Your task to perform on an android device: set an alarm Image 0: 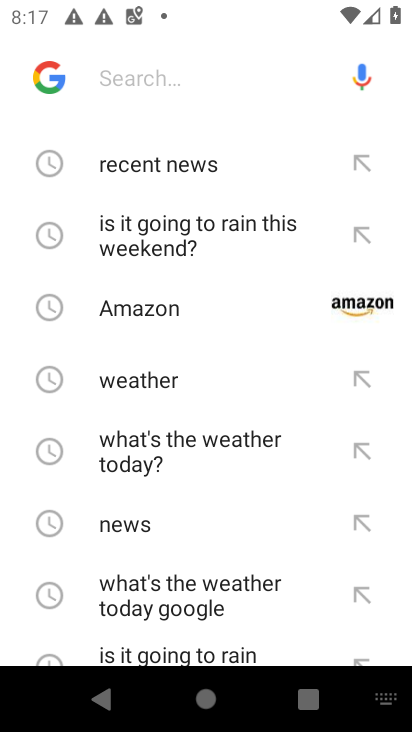
Step 0: press back button
Your task to perform on an android device: set an alarm Image 1: 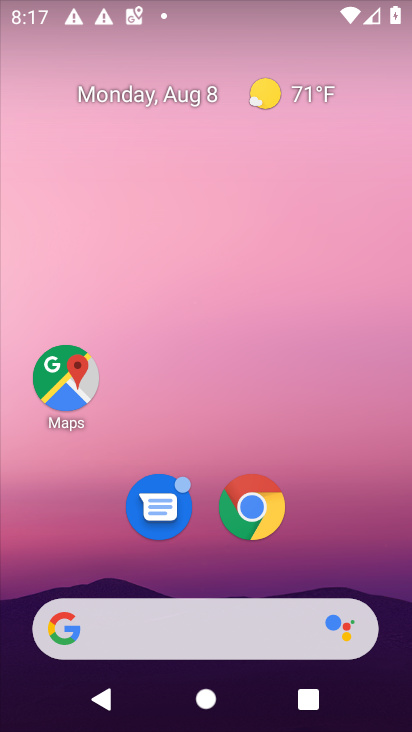
Step 1: drag from (223, 590) to (310, 37)
Your task to perform on an android device: set an alarm Image 2: 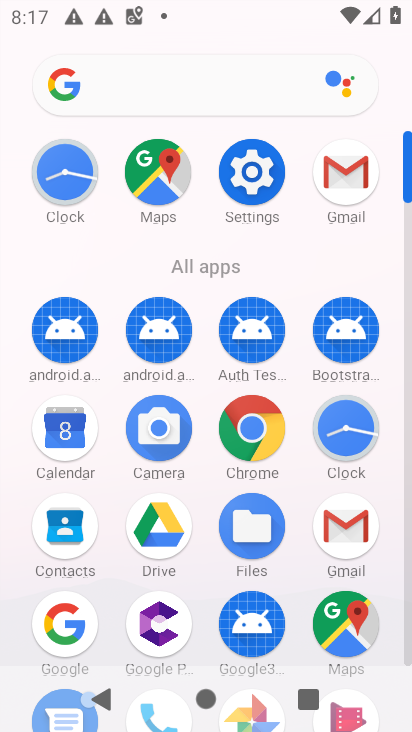
Step 2: click (338, 438)
Your task to perform on an android device: set an alarm Image 3: 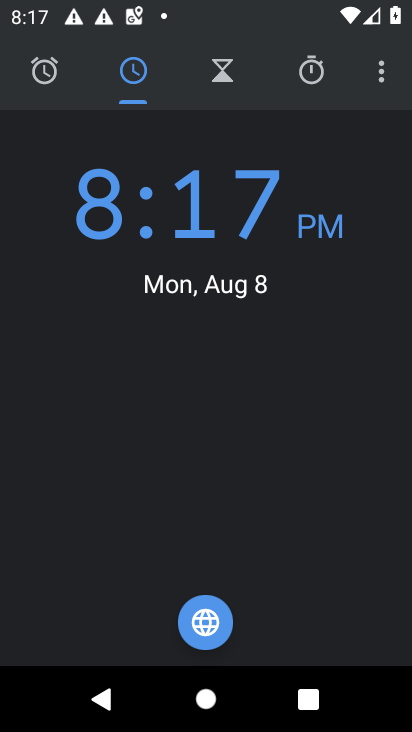
Step 3: click (50, 68)
Your task to perform on an android device: set an alarm Image 4: 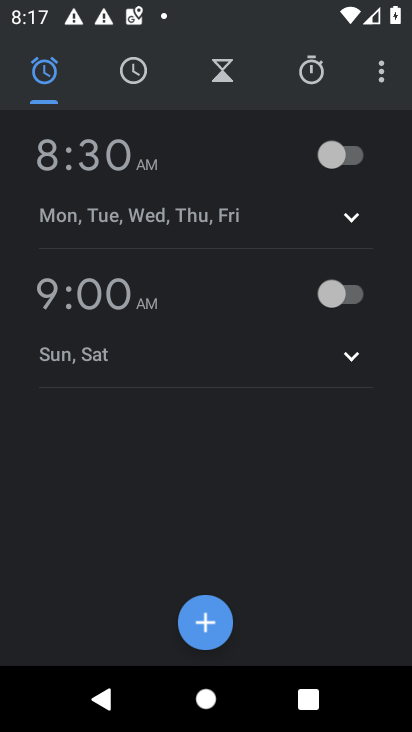
Step 4: click (198, 625)
Your task to perform on an android device: set an alarm Image 5: 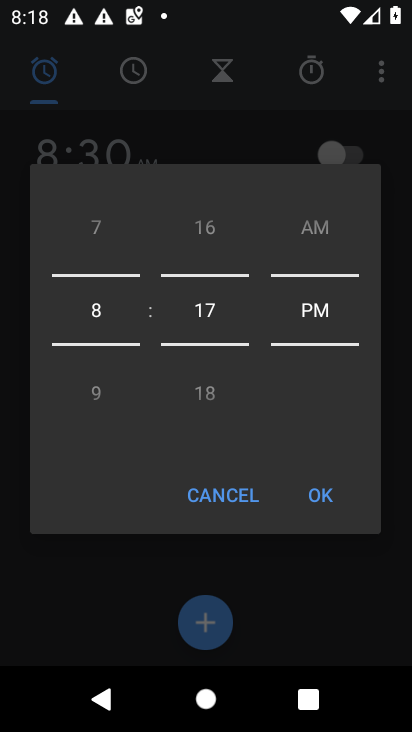
Step 5: click (322, 487)
Your task to perform on an android device: set an alarm Image 6: 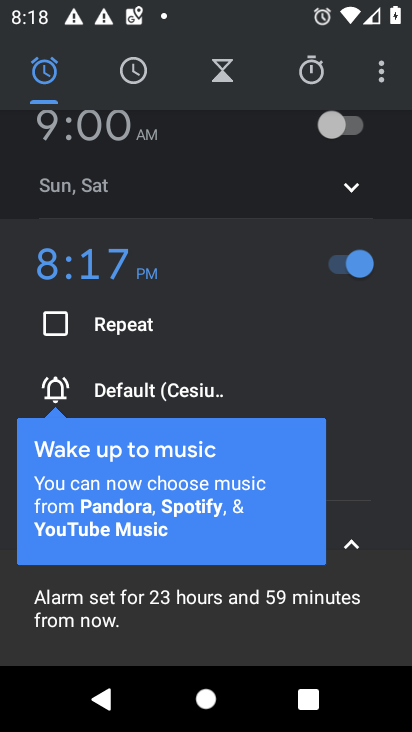
Step 6: task complete